Your task to perform on an android device: turn off airplane mode Image 0: 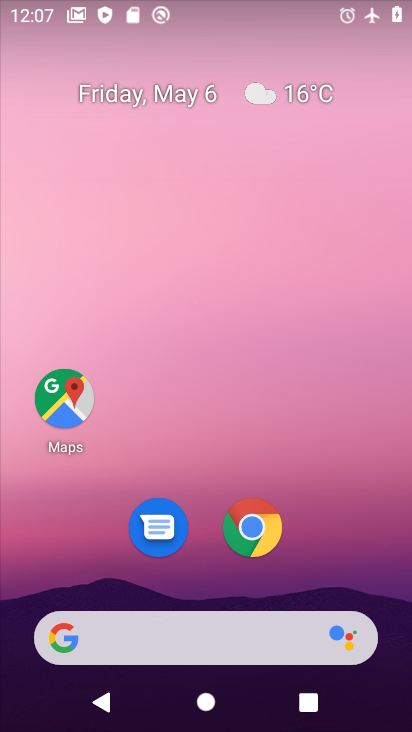
Step 0: drag from (320, 529) to (165, 108)
Your task to perform on an android device: turn off airplane mode Image 1: 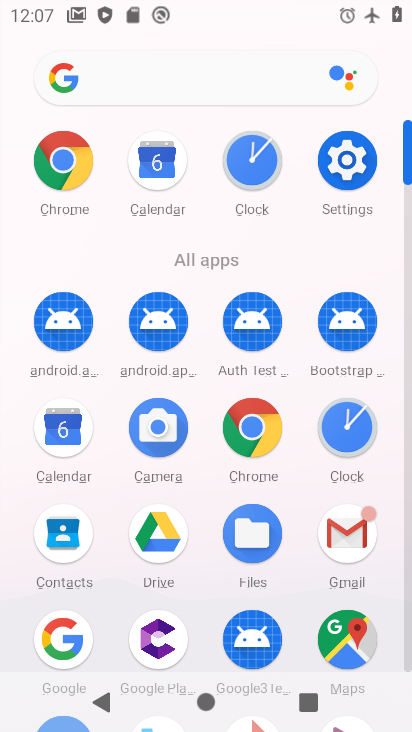
Step 1: click (358, 160)
Your task to perform on an android device: turn off airplane mode Image 2: 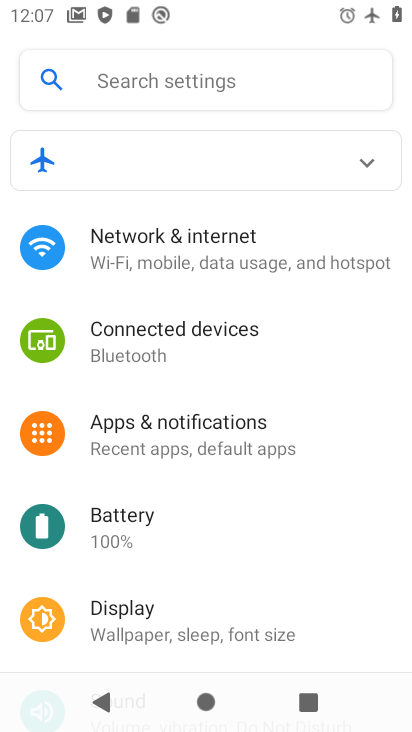
Step 2: click (208, 258)
Your task to perform on an android device: turn off airplane mode Image 3: 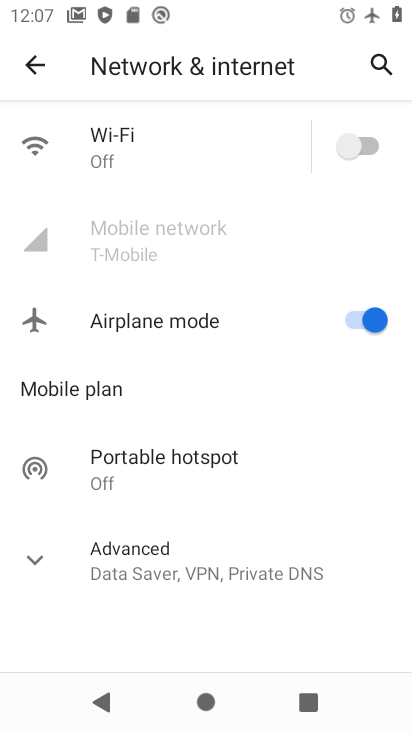
Step 3: click (358, 321)
Your task to perform on an android device: turn off airplane mode Image 4: 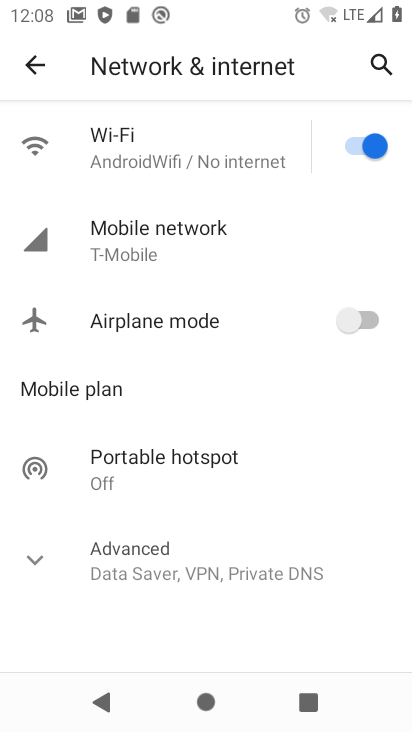
Step 4: task complete